Your task to perform on an android device: Open the phone app and click the voicemail tab. Image 0: 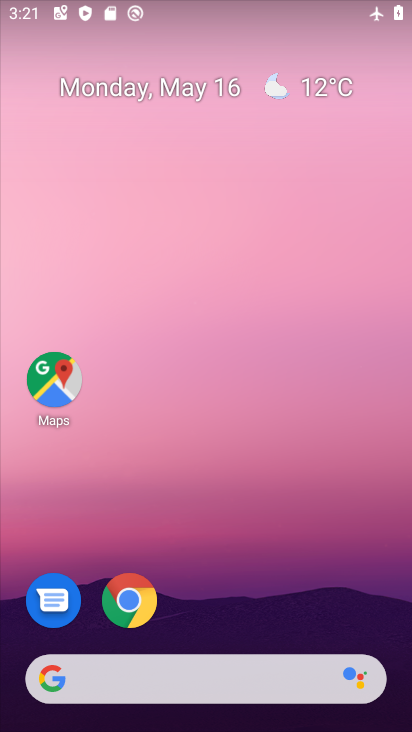
Step 0: drag from (253, 659) to (233, 19)
Your task to perform on an android device: Open the phone app and click the voicemail tab. Image 1: 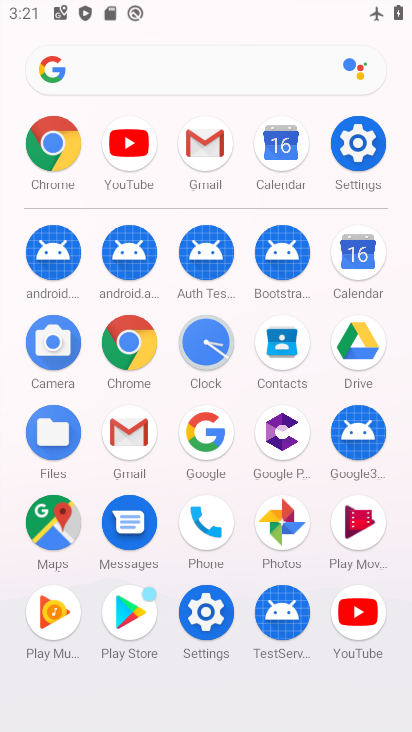
Step 1: click (202, 536)
Your task to perform on an android device: Open the phone app and click the voicemail tab. Image 2: 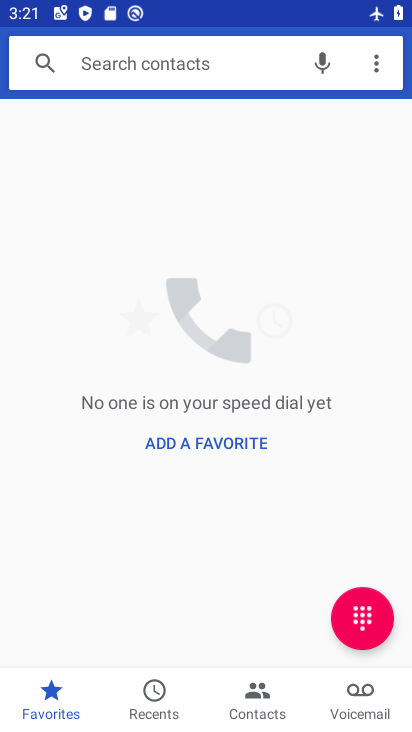
Step 2: click (356, 691)
Your task to perform on an android device: Open the phone app and click the voicemail tab. Image 3: 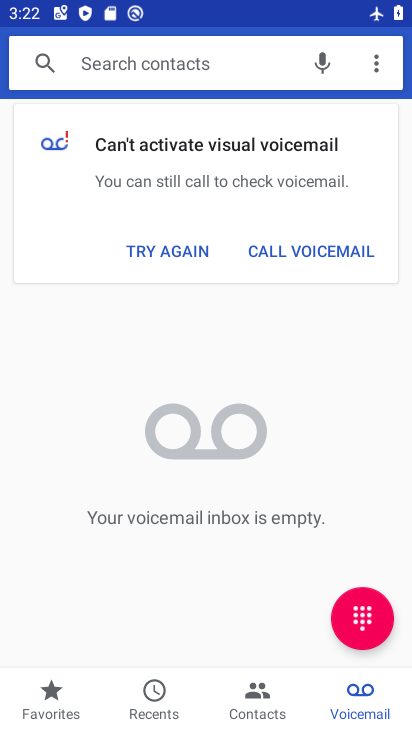
Step 3: task complete